Your task to perform on an android device: Go to wifi settings Image 0: 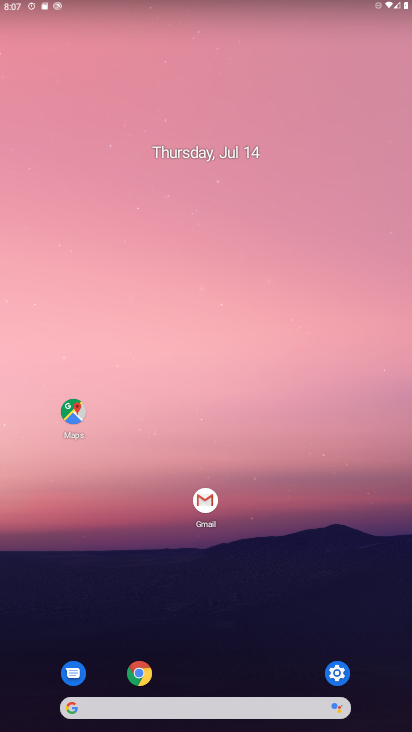
Step 0: click (342, 665)
Your task to perform on an android device: Go to wifi settings Image 1: 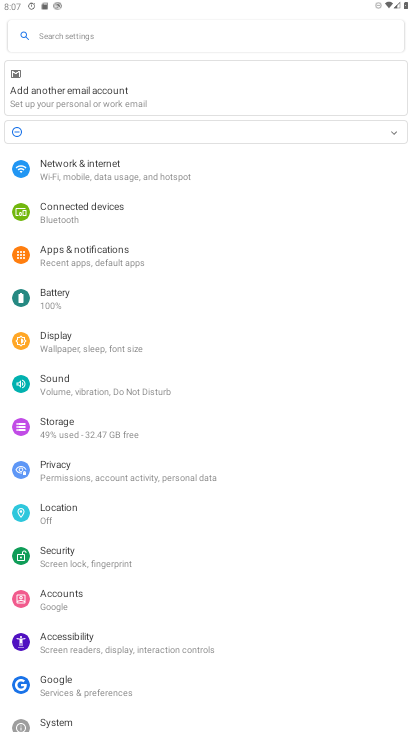
Step 1: click (106, 169)
Your task to perform on an android device: Go to wifi settings Image 2: 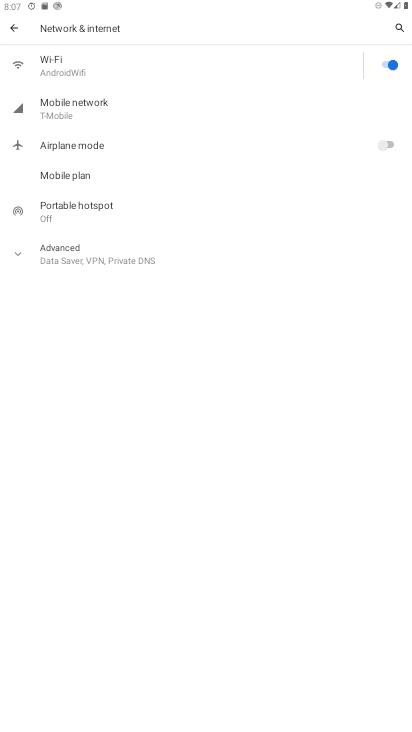
Step 2: click (118, 70)
Your task to perform on an android device: Go to wifi settings Image 3: 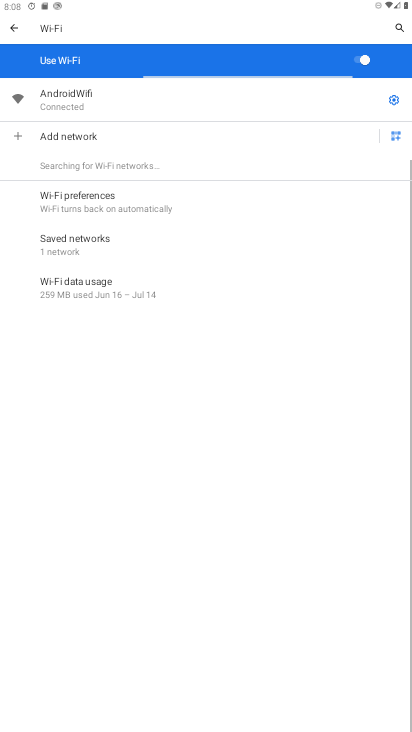
Step 3: task complete